Your task to perform on an android device: See recent photos Image 0: 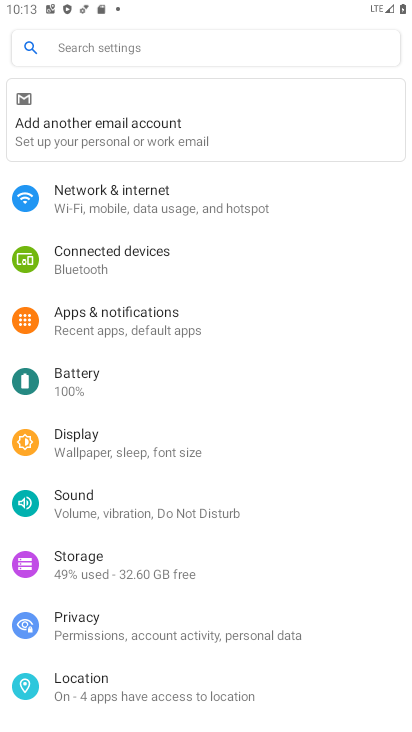
Step 0: press home button
Your task to perform on an android device: See recent photos Image 1: 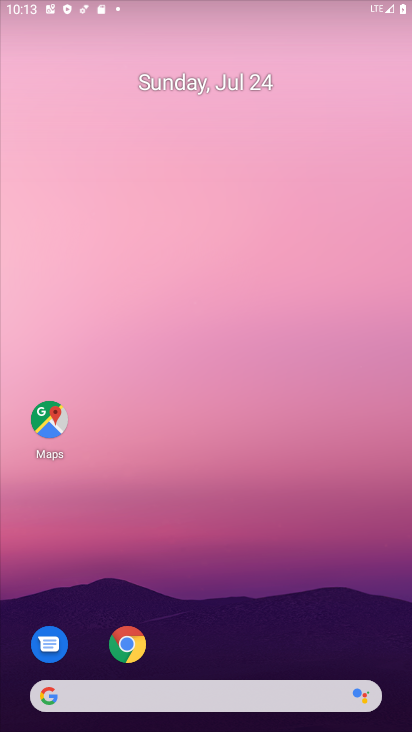
Step 1: drag from (29, 707) to (342, 105)
Your task to perform on an android device: See recent photos Image 2: 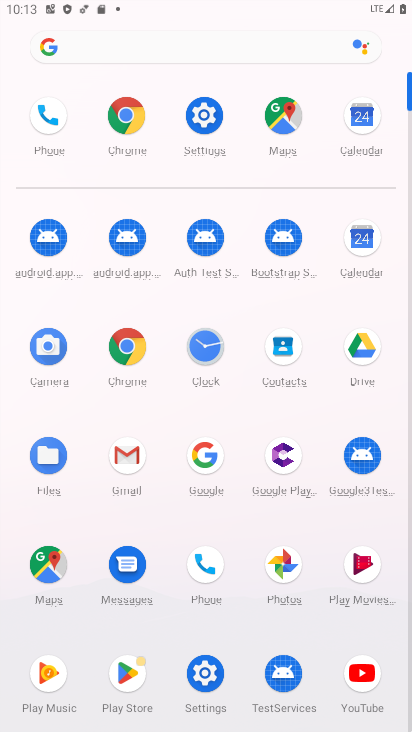
Step 2: click (270, 565)
Your task to perform on an android device: See recent photos Image 3: 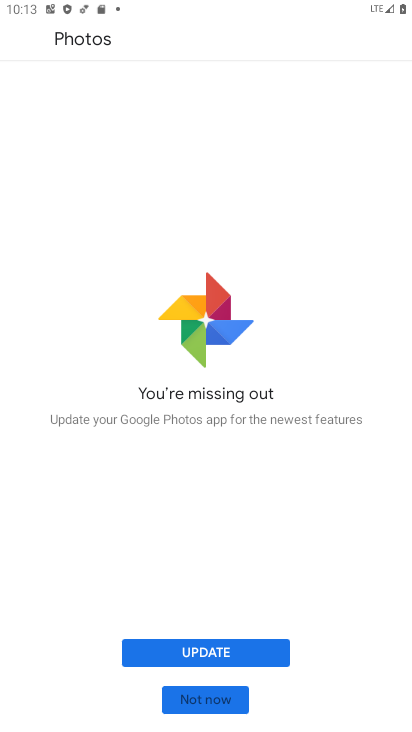
Step 3: click (203, 701)
Your task to perform on an android device: See recent photos Image 4: 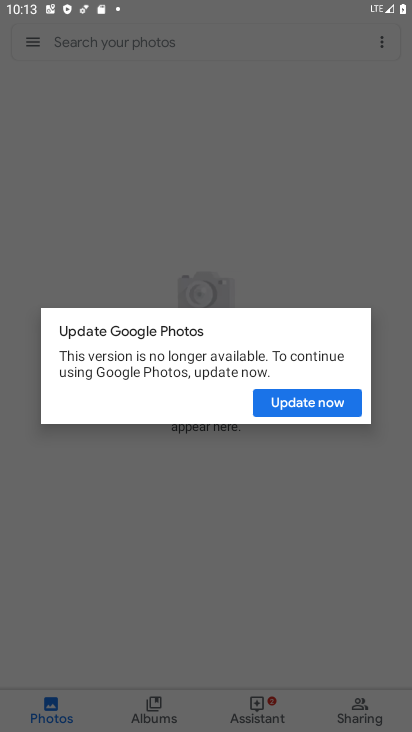
Step 4: click (44, 731)
Your task to perform on an android device: See recent photos Image 5: 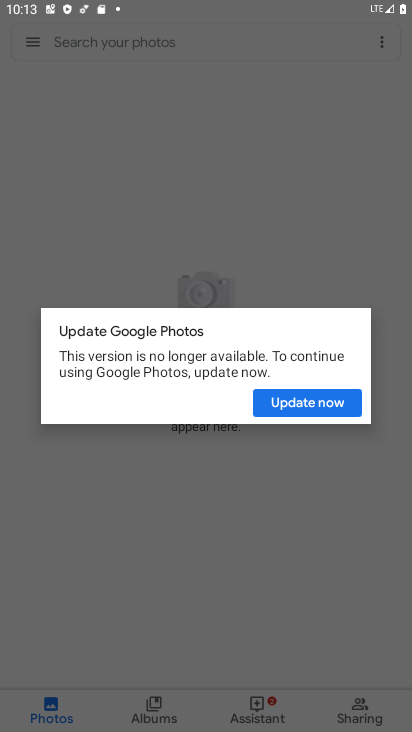
Step 5: click (280, 404)
Your task to perform on an android device: See recent photos Image 6: 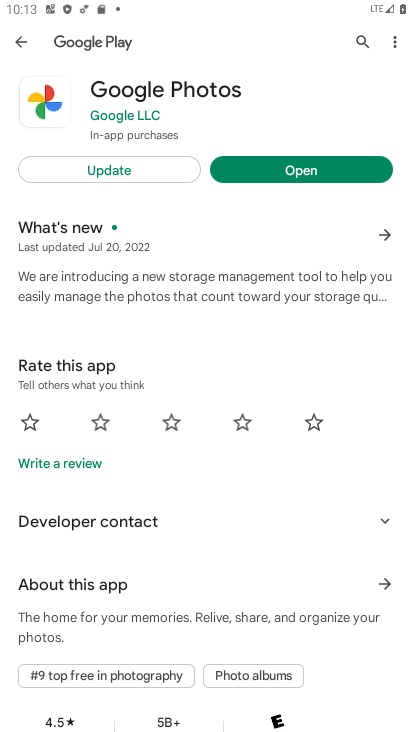
Step 6: click (316, 170)
Your task to perform on an android device: See recent photos Image 7: 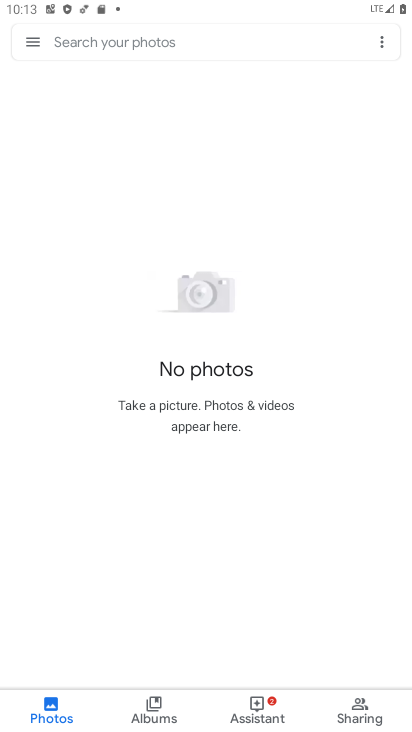
Step 7: click (51, 707)
Your task to perform on an android device: See recent photos Image 8: 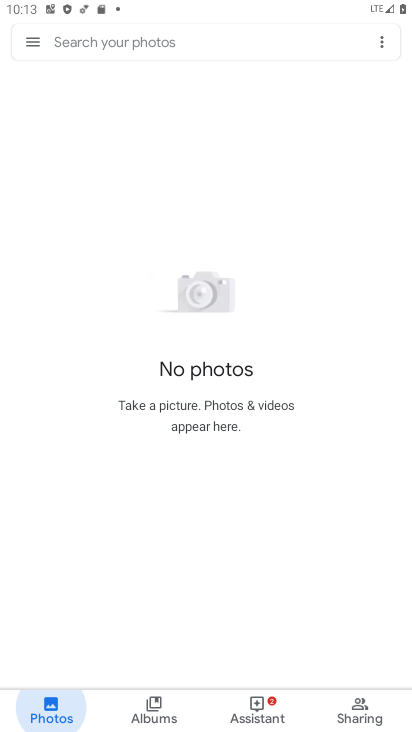
Step 8: click (51, 707)
Your task to perform on an android device: See recent photos Image 9: 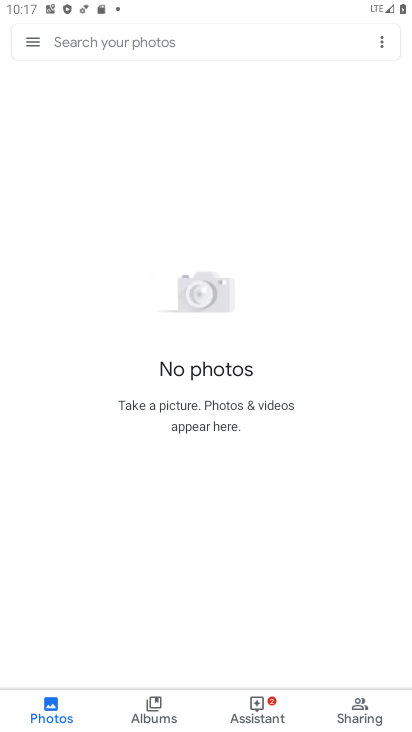
Step 9: task complete